Your task to perform on an android device: set an alarm Image 0: 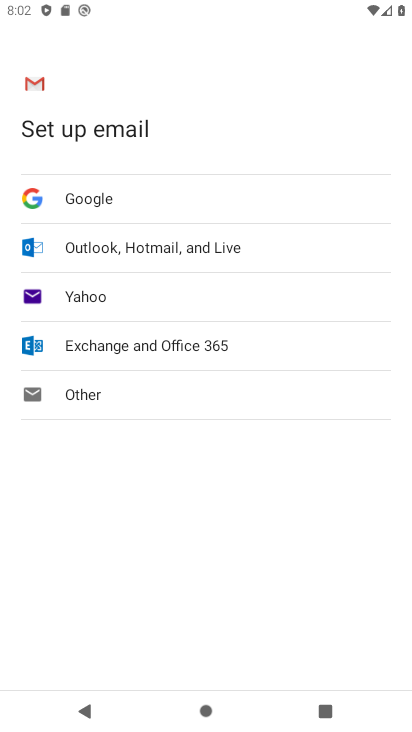
Step 0: press home button
Your task to perform on an android device: set an alarm Image 1: 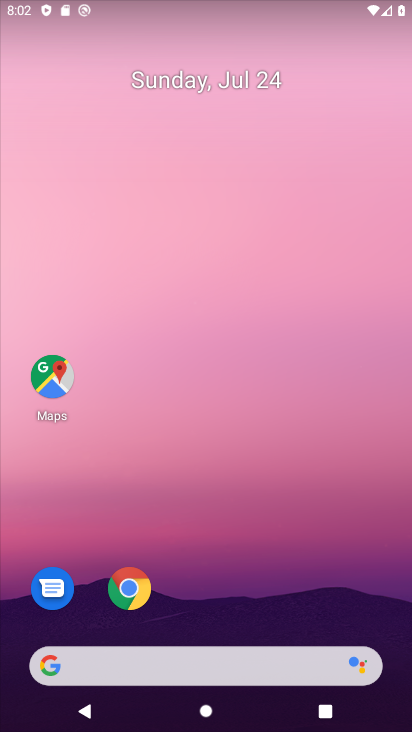
Step 1: drag from (138, 638) to (194, 245)
Your task to perform on an android device: set an alarm Image 2: 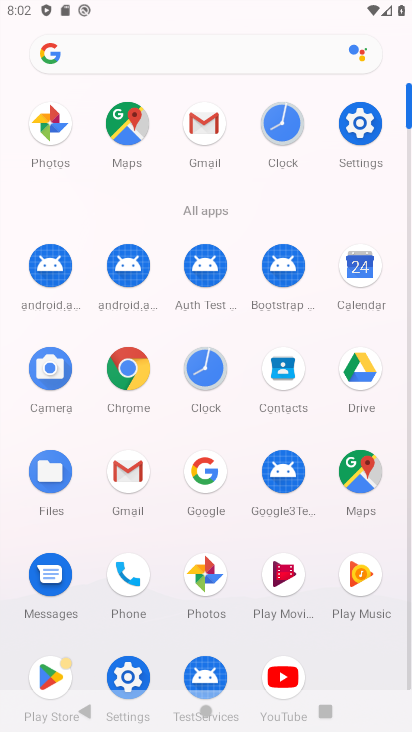
Step 2: drag from (208, 268) to (208, 117)
Your task to perform on an android device: set an alarm Image 3: 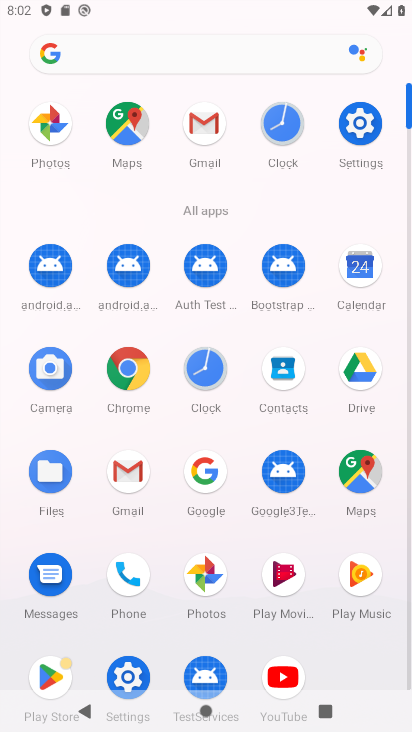
Step 3: click (193, 353)
Your task to perform on an android device: set an alarm Image 4: 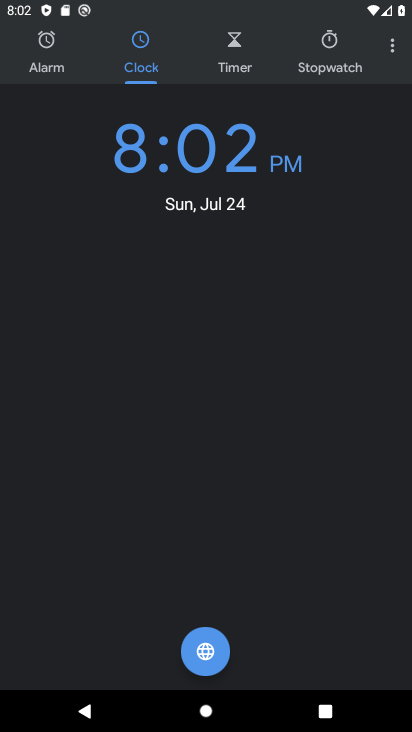
Step 4: click (68, 42)
Your task to perform on an android device: set an alarm Image 5: 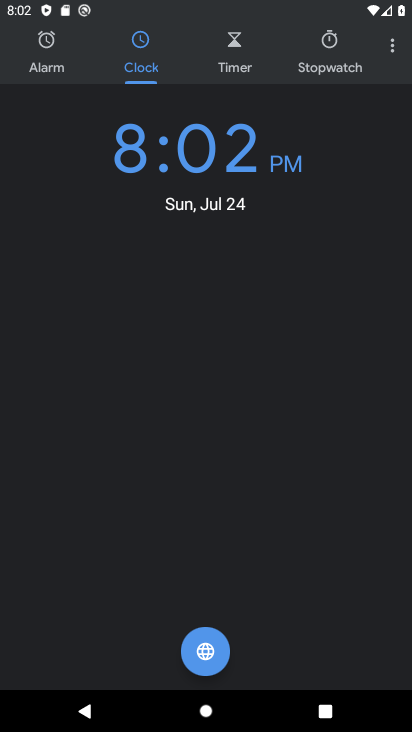
Step 5: click (60, 56)
Your task to perform on an android device: set an alarm Image 6: 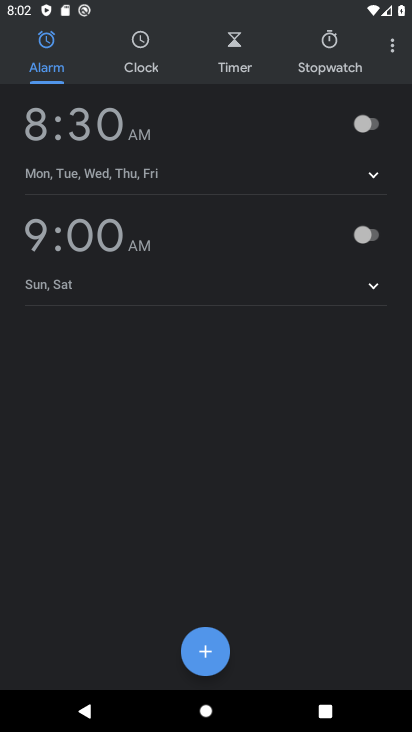
Step 6: click (363, 129)
Your task to perform on an android device: set an alarm Image 7: 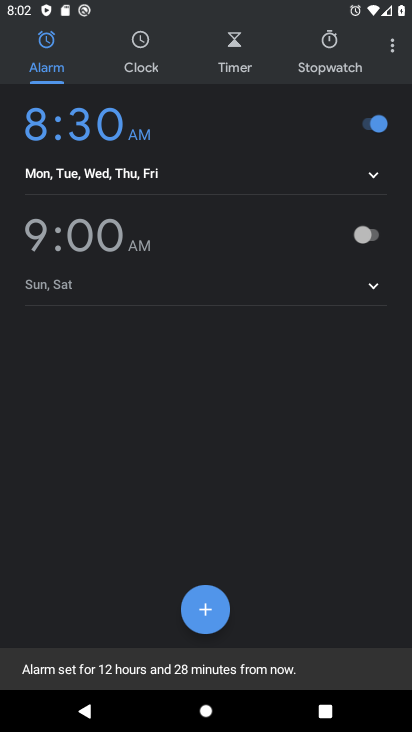
Step 7: task complete